Your task to perform on an android device: uninstall "AliExpress" Image 0: 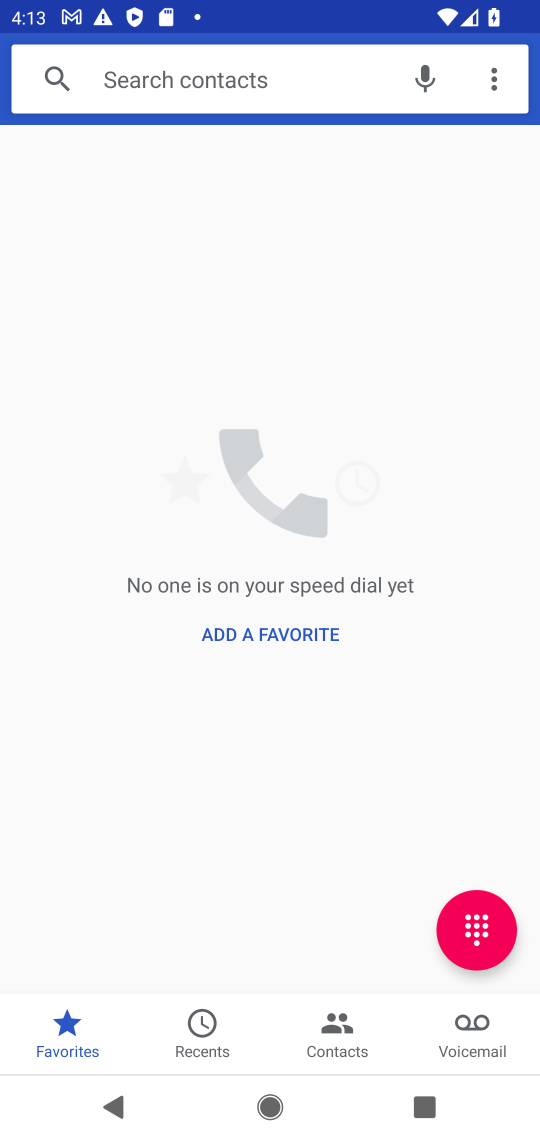
Step 0: press home button
Your task to perform on an android device: uninstall "AliExpress" Image 1: 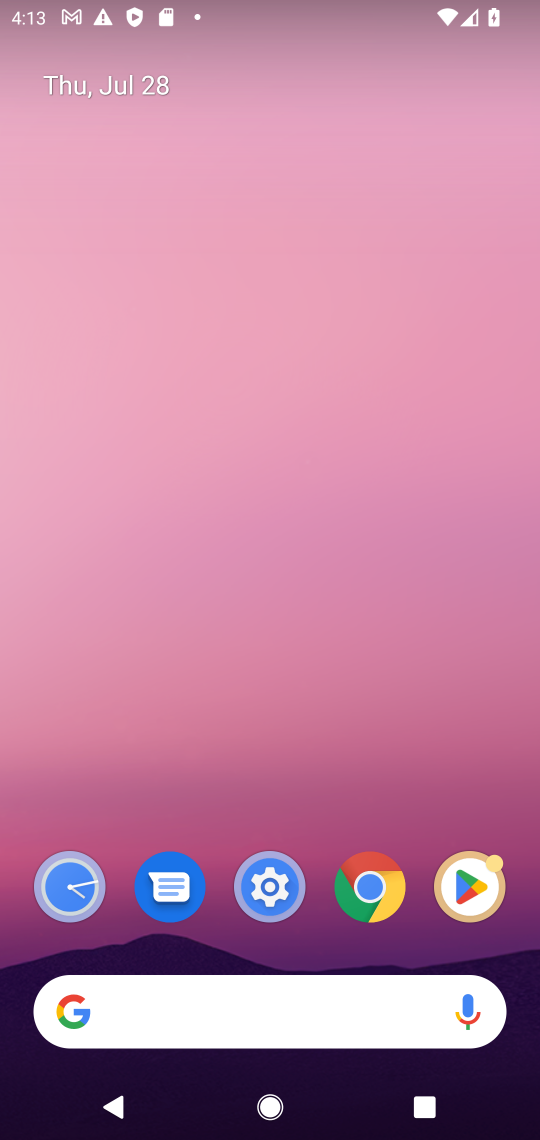
Step 1: click (498, 855)
Your task to perform on an android device: uninstall "AliExpress" Image 2: 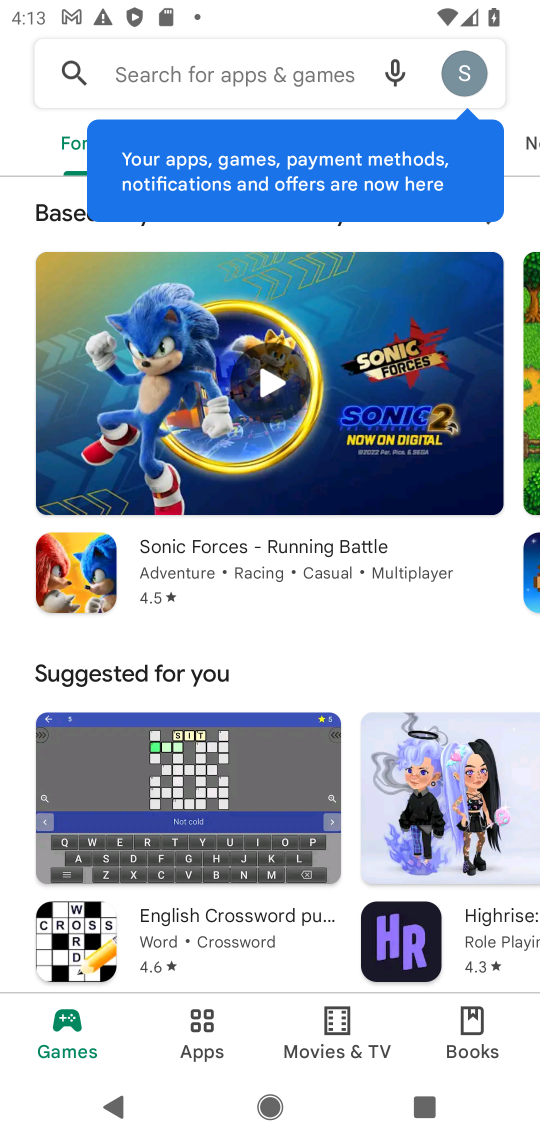
Step 2: click (248, 63)
Your task to perform on an android device: uninstall "AliExpress" Image 3: 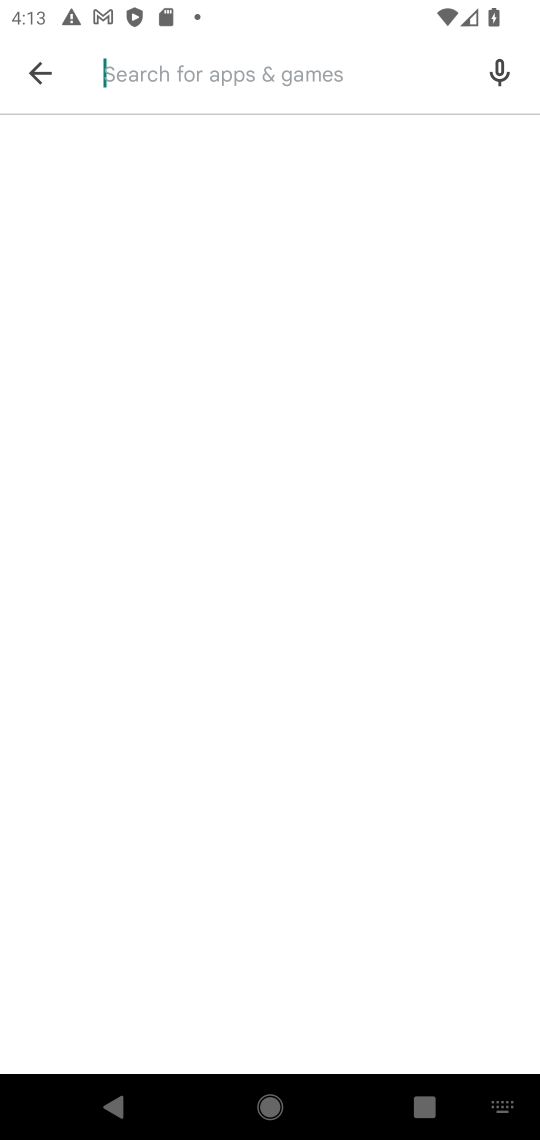
Step 3: type "Ali express"
Your task to perform on an android device: uninstall "AliExpress" Image 4: 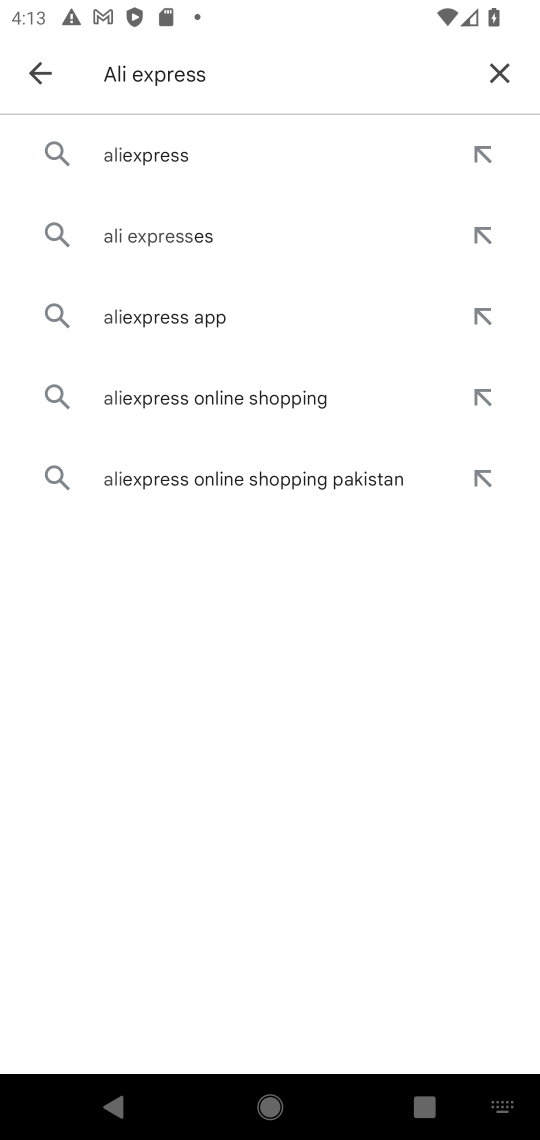
Step 4: click (188, 166)
Your task to perform on an android device: uninstall "AliExpress" Image 5: 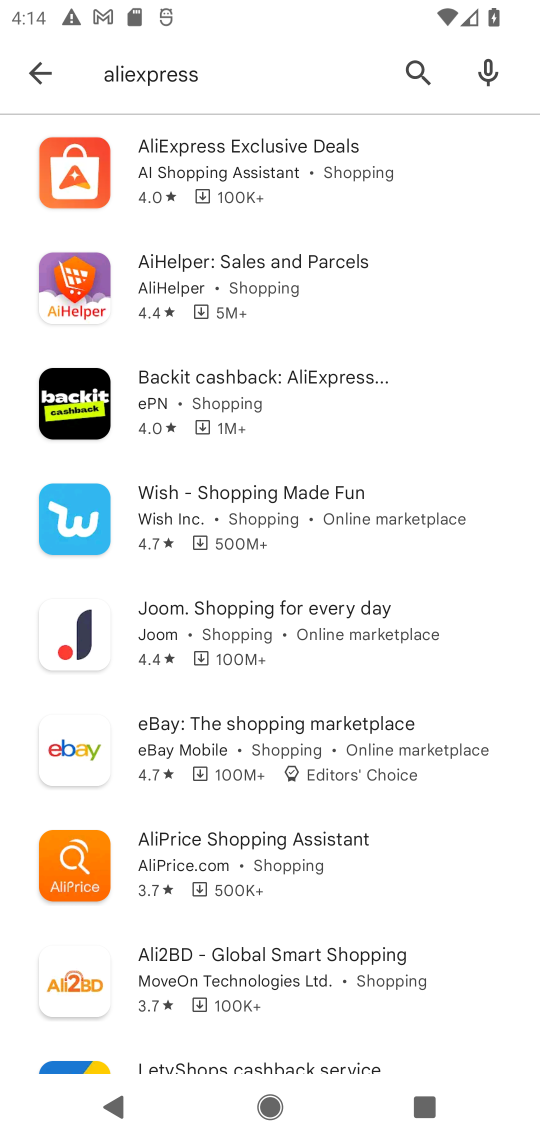
Step 5: click (180, 156)
Your task to perform on an android device: uninstall "AliExpress" Image 6: 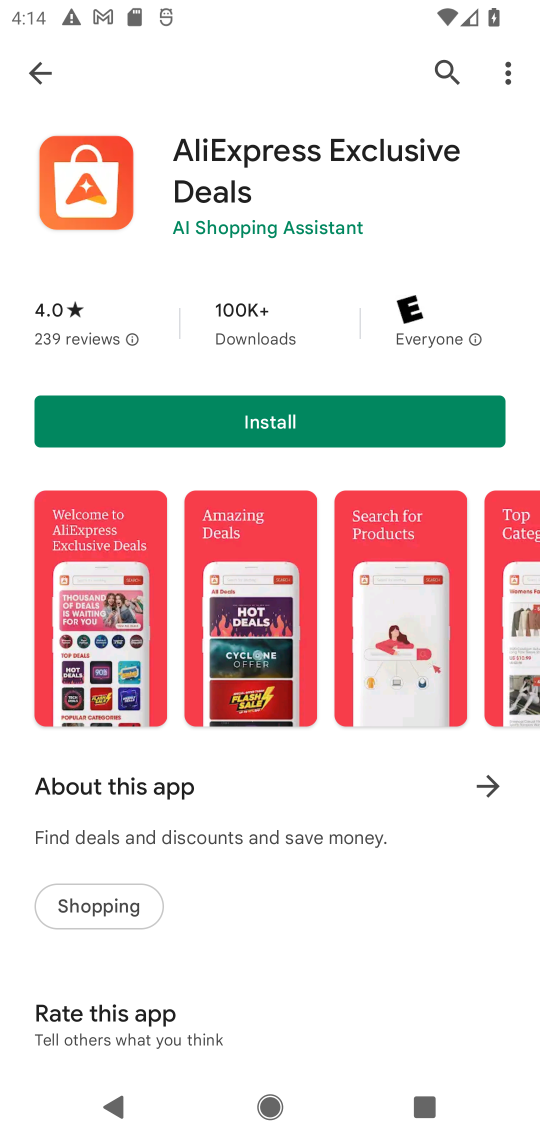
Step 6: task complete